Your task to perform on an android device: Open display settings Image 0: 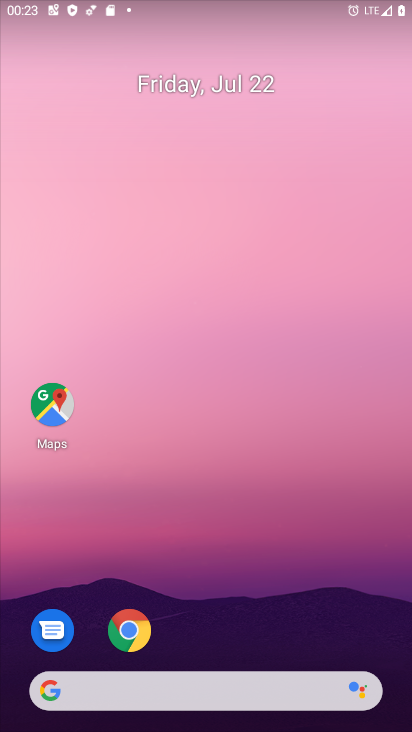
Step 0: drag from (218, 636) to (185, 144)
Your task to perform on an android device: Open display settings Image 1: 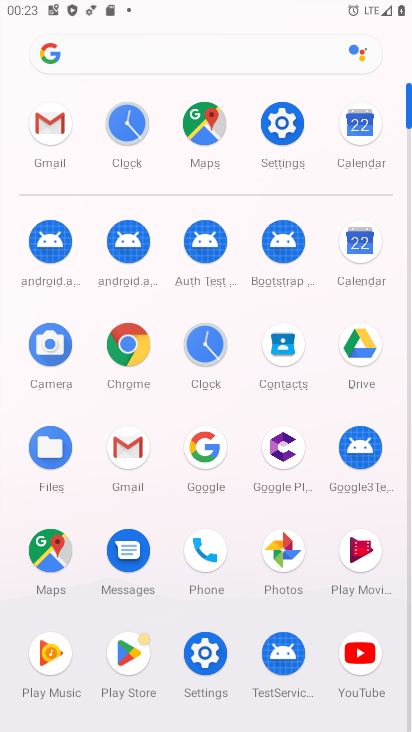
Step 1: click (209, 650)
Your task to perform on an android device: Open display settings Image 2: 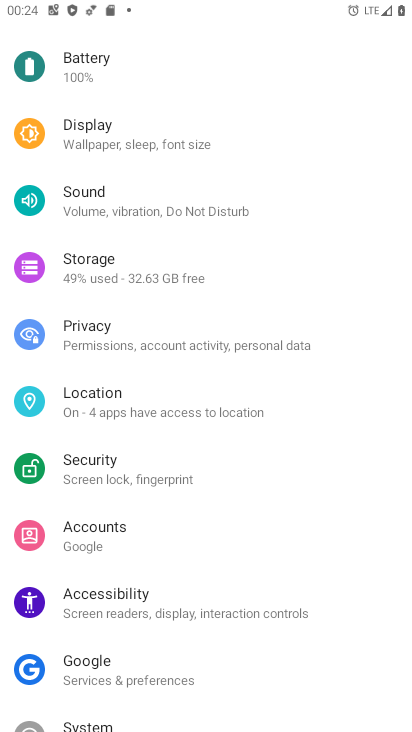
Step 2: click (163, 154)
Your task to perform on an android device: Open display settings Image 3: 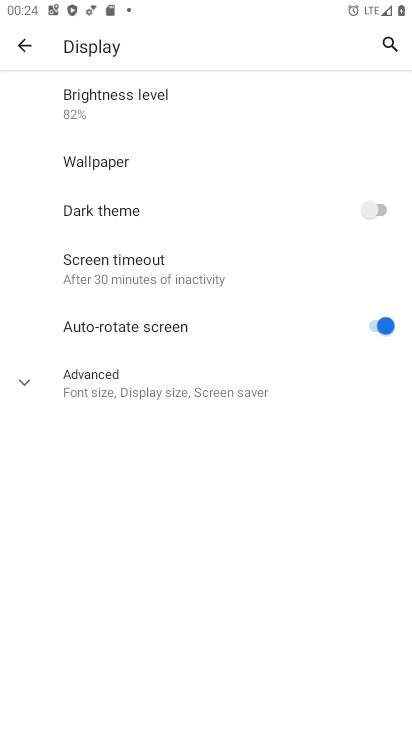
Step 3: task complete